Your task to perform on an android device: see tabs open on other devices in the chrome app Image 0: 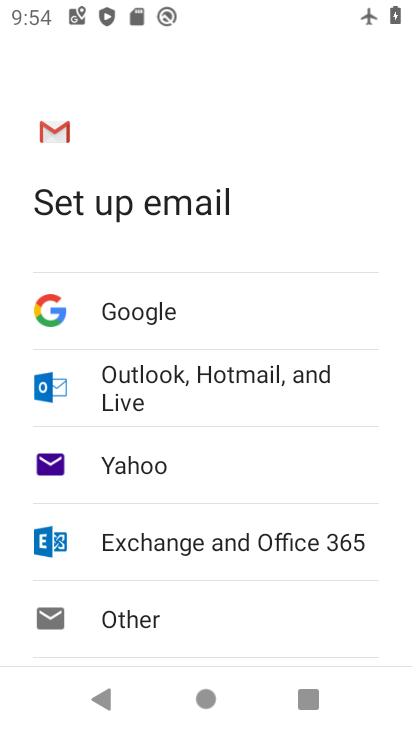
Step 0: press home button
Your task to perform on an android device: see tabs open on other devices in the chrome app Image 1: 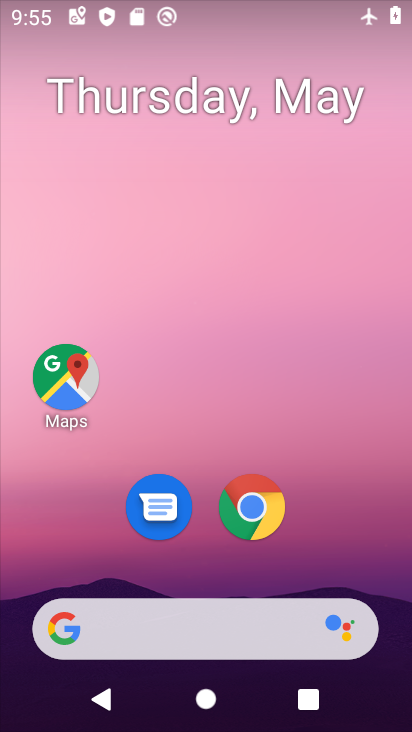
Step 1: drag from (257, 561) to (325, 249)
Your task to perform on an android device: see tabs open on other devices in the chrome app Image 2: 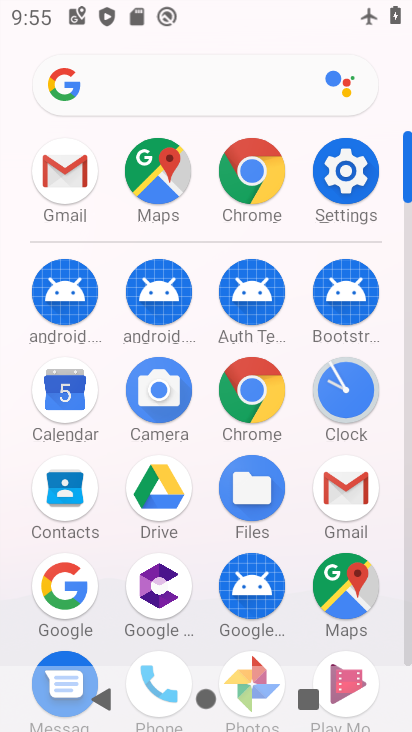
Step 2: click (262, 197)
Your task to perform on an android device: see tabs open on other devices in the chrome app Image 3: 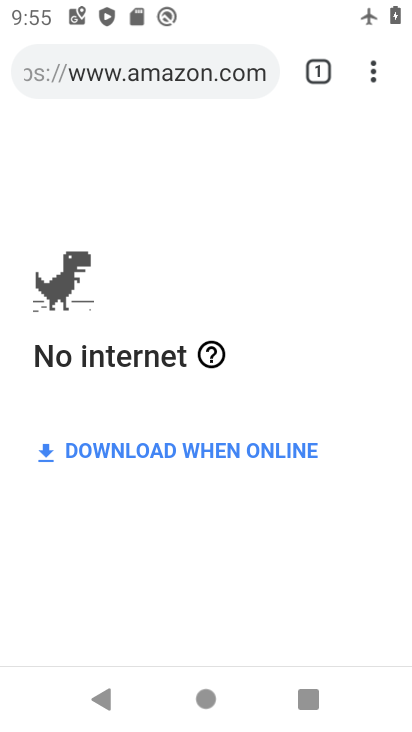
Step 3: task complete